Your task to perform on an android device: open app "Spotify: Music and Podcasts" (install if not already installed) Image 0: 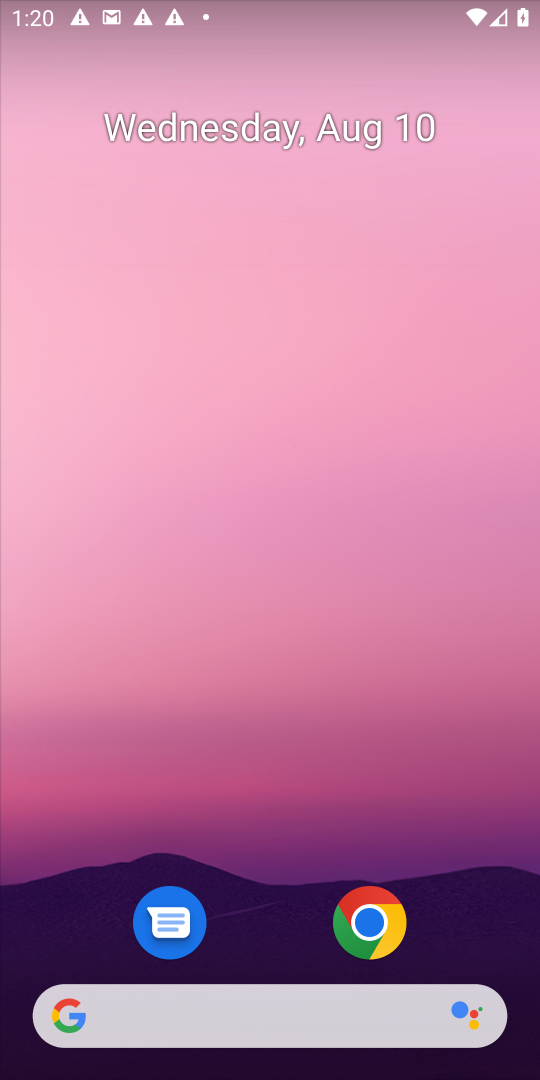
Step 0: drag from (261, 629) to (272, 25)
Your task to perform on an android device: open app "Spotify: Music and Podcasts" (install if not already installed) Image 1: 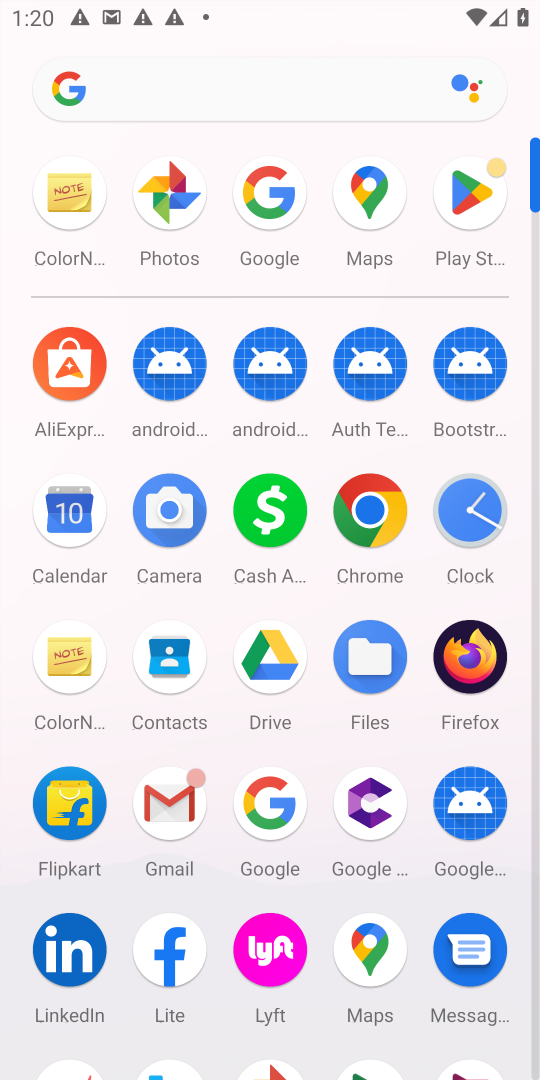
Step 1: click (476, 183)
Your task to perform on an android device: open app "Spotify: Music and Podcasts" (install if not already installed) Image 2: 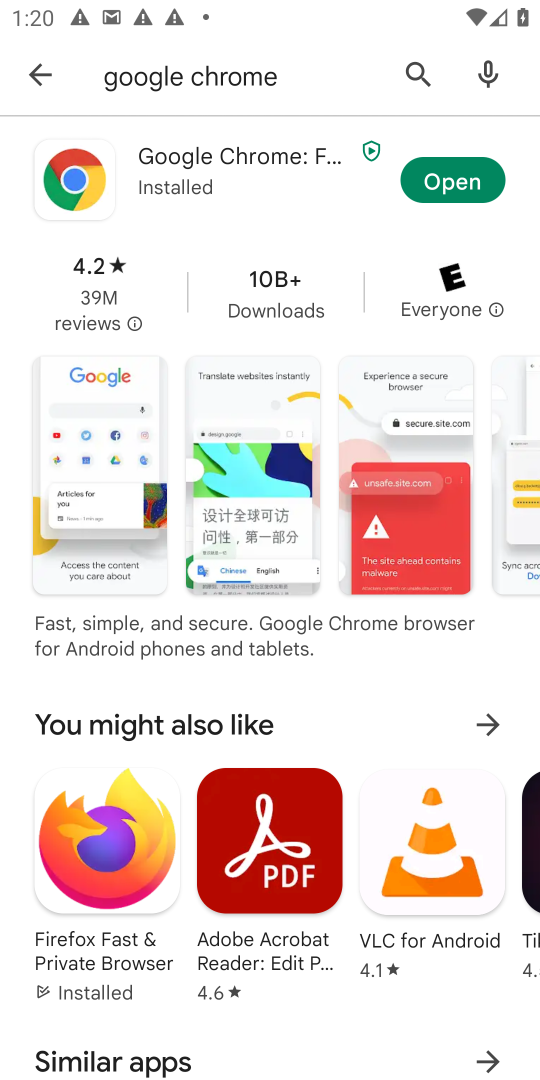
Step 2: click (37, 71)
Your task to perform on an android device: open app "Spotify: Music and Podcasts" (install if not already installed) Image 3: 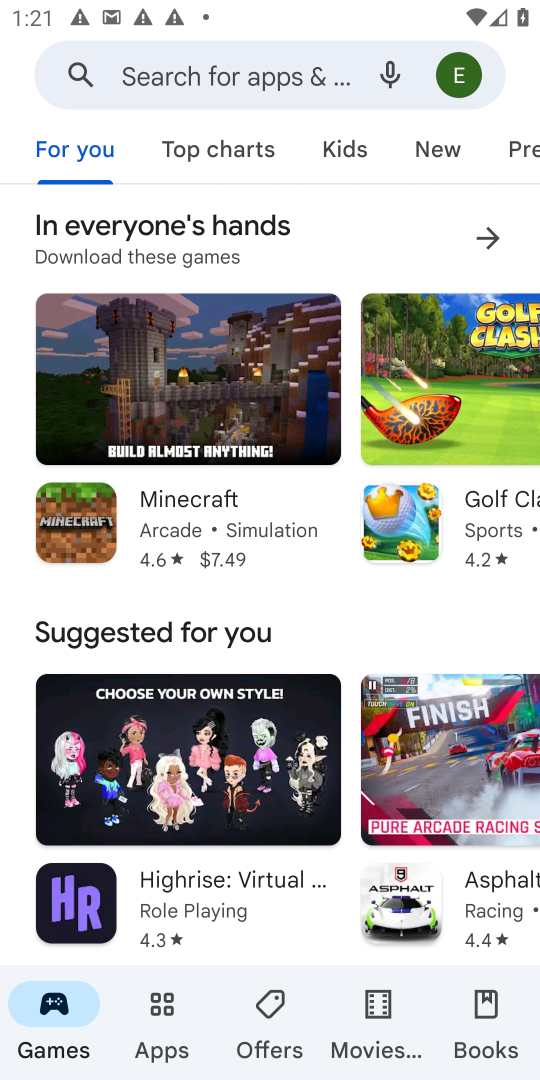
Step 3: click (221, 77)
Your task to perform on an android device: open app "Spotify: Music and Podcasts" (install if not already installed) Image 4: 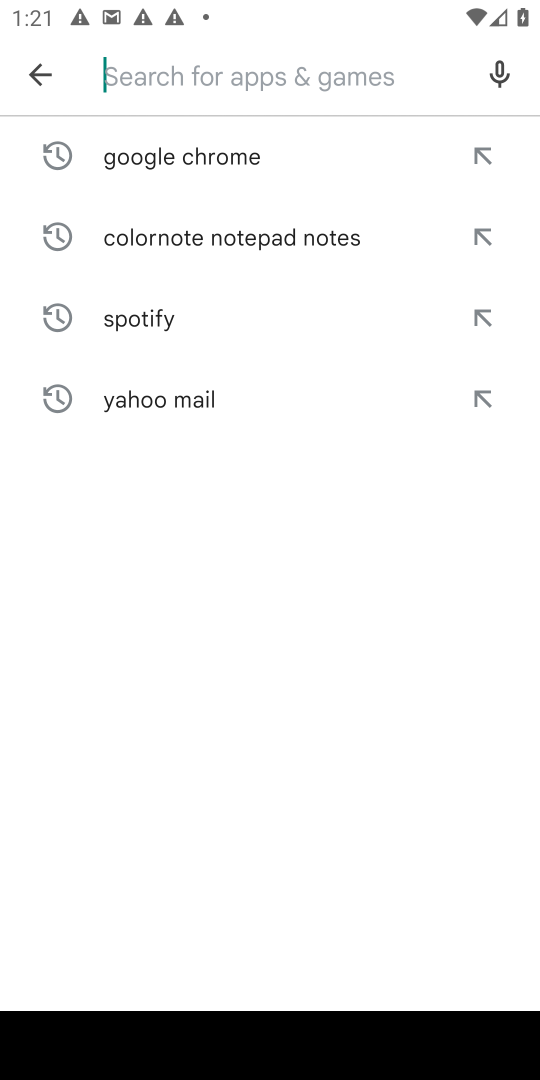
Step 4: type "Spotify"
Your task to perform on an android device: open app "Spotify: Music and Podcasts" (install if not already installed) Image 5: 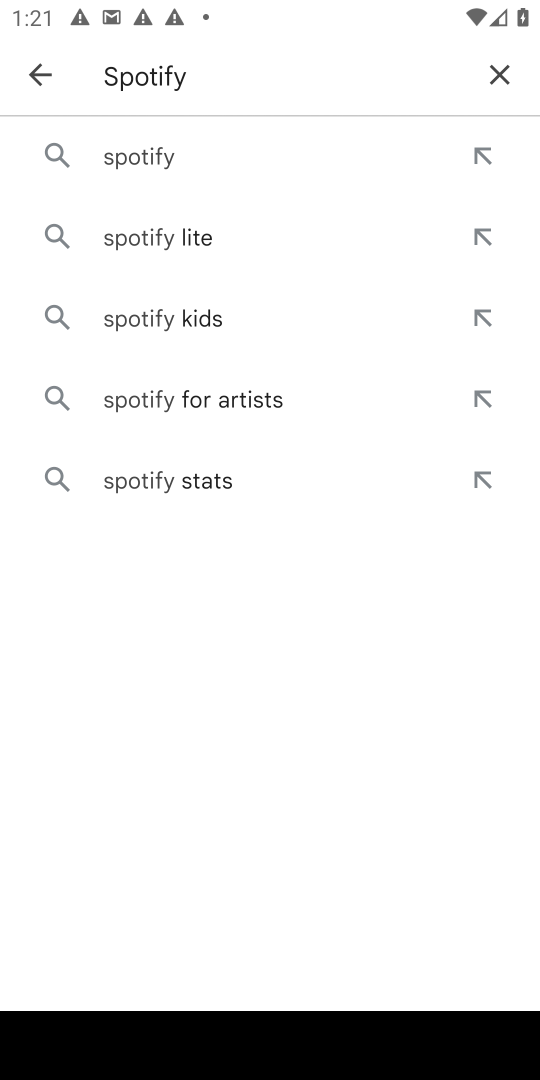
Step 5: click (139, 164)
Your task to perform on an android device: open app "Spotify: Music and Podcasts" (install if not already installed) Image 6: 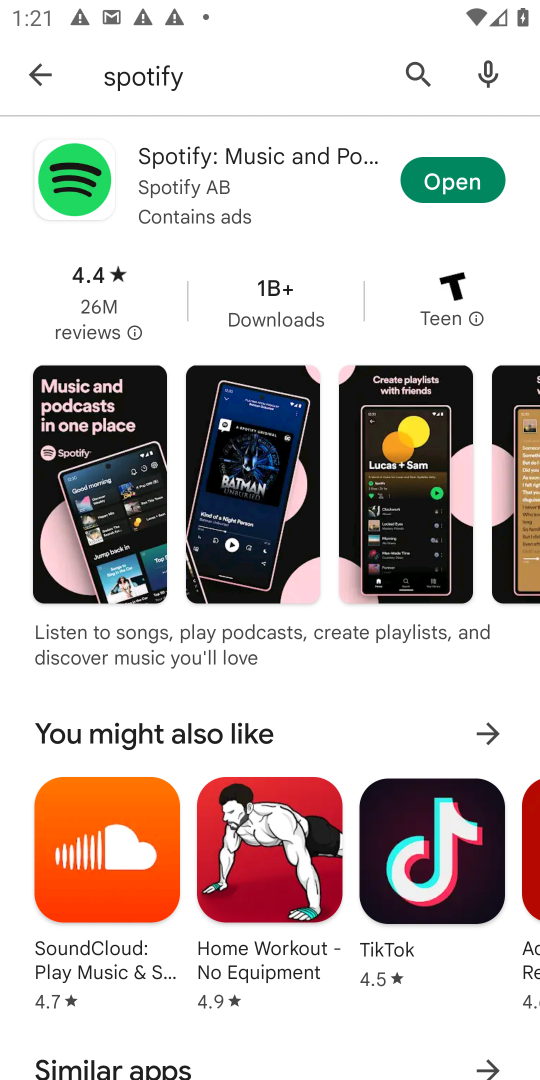
Step 6: click (426, 174)
Your task to perform on an android device: open app "Spotify: Music and Podcasts" (install if not already installed) Image 7: 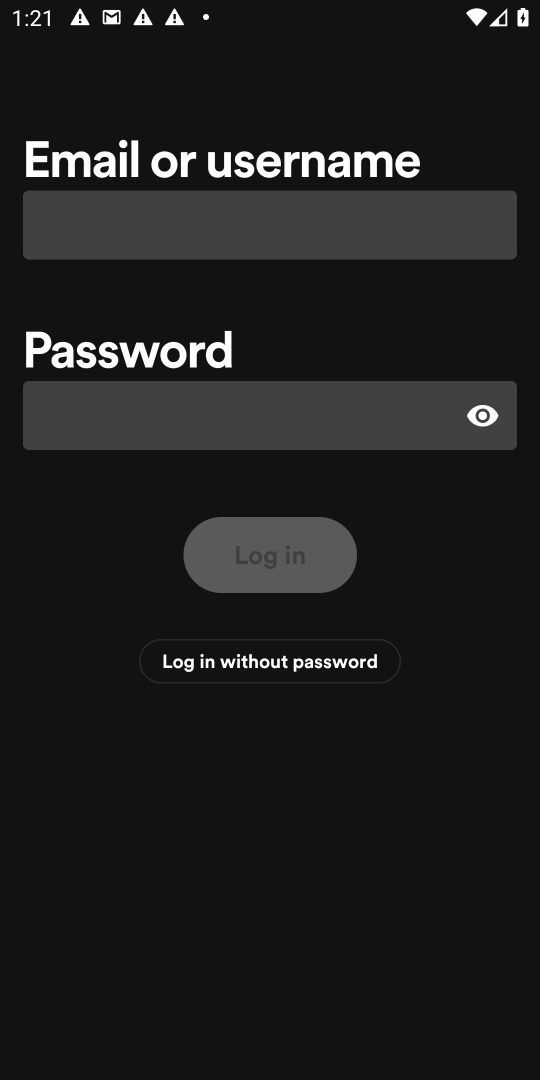
Step 7: task complete